Your task to perform on an android device: turn smart compose on in the gmail app Image 0: 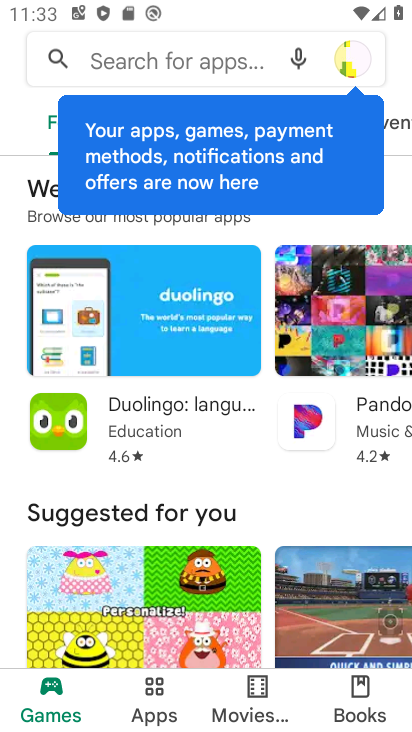
Step 0: press home button
Your task to perform on an android device: turn smart compose on in the gmail app Image 1: 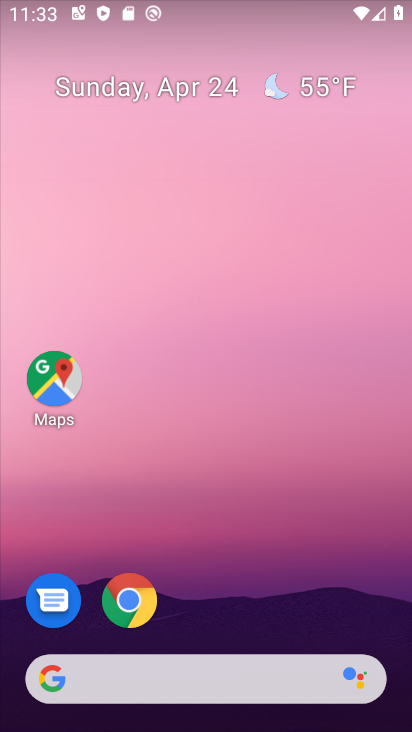
Step 1: drag from (205, 637) to (235, 82)
Your task to perform on an android device: turn smart compose on in the gmail app Image 2: 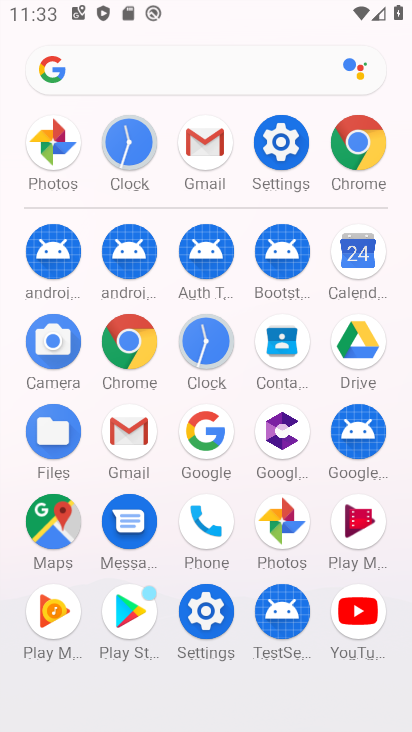
Step 2: click (125, 432)
Your task to perform on an android device: turn smart compose on in the gmail app Image 3: 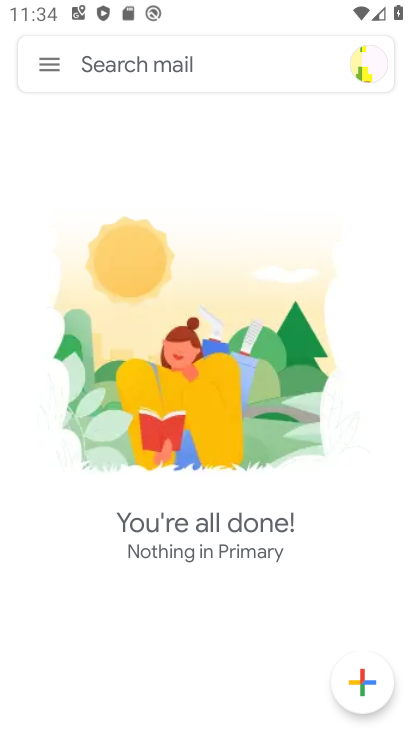
Step 3: click (69, 56)
Your task to perform on an android device: turn smart compose on in the gmail app Image 4: 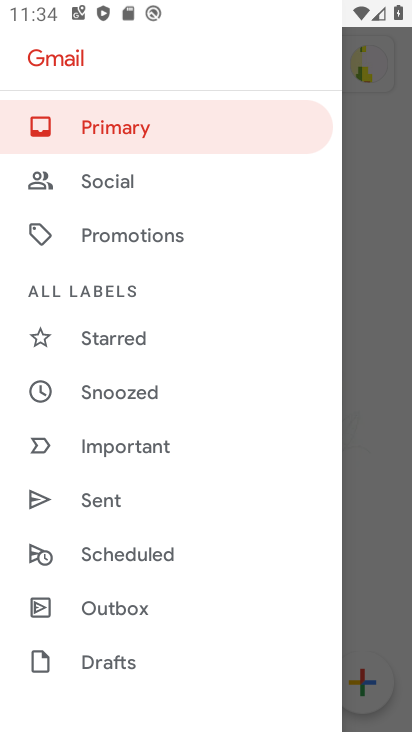
Step 4: drag from (138, 570) to (159, 196)
Your task to perform on an android device: turn smart compose on in the gmail app Image 5: 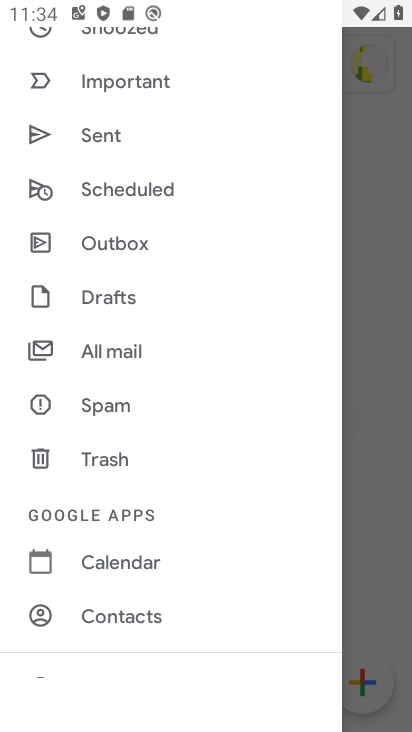
Step 5: drag from (107, 532) to (234, 91)
Your task to perform on an android device: turn smart compose on in the gmail app Image 6: 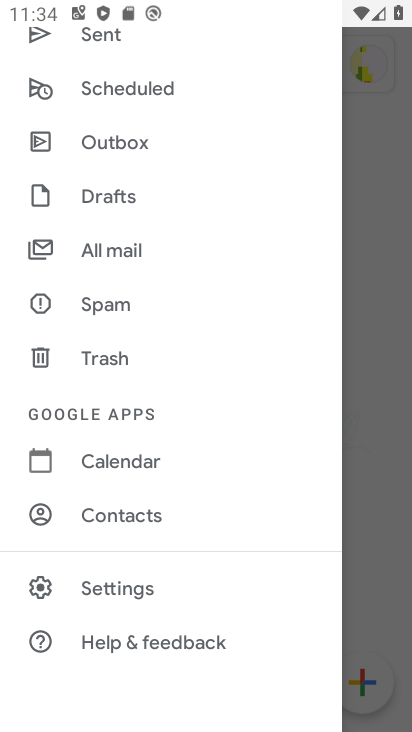
Step 6: click (132, 599)
Your task to perform on an android device: turn smart compose on in the gmail app Image 7: 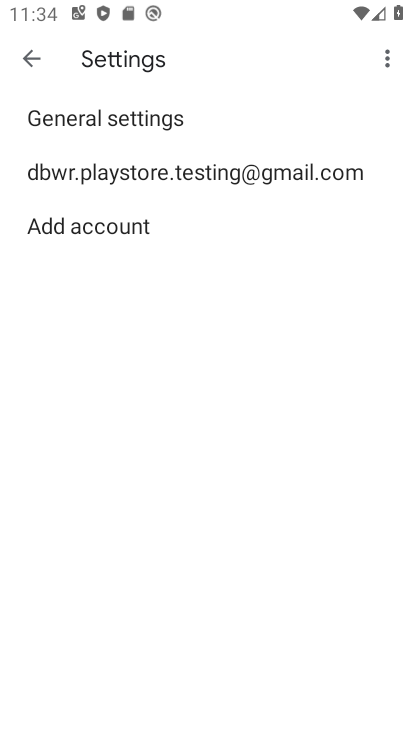
Step 7: click (188, 167)
Your task to perform on an android device: turn smart compose on in the gmail app Image 8: 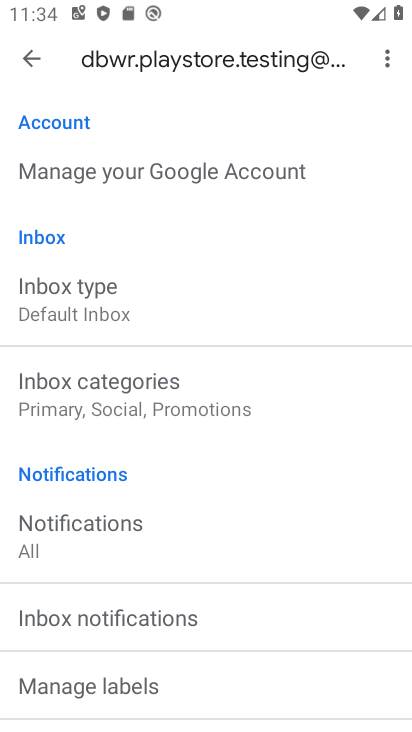
Step 8: task complete